Your task to perform on an android device: read, delete, or share a saved page in the chrome app Image 0: 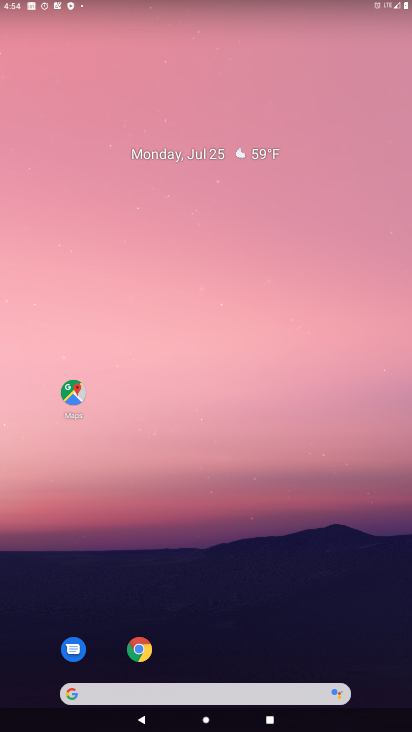
Step 0: drag from (263, 636) to (211, 42)
Your task to perform on an android device: read, delete, or share a saved page in the chrome app Image 1: 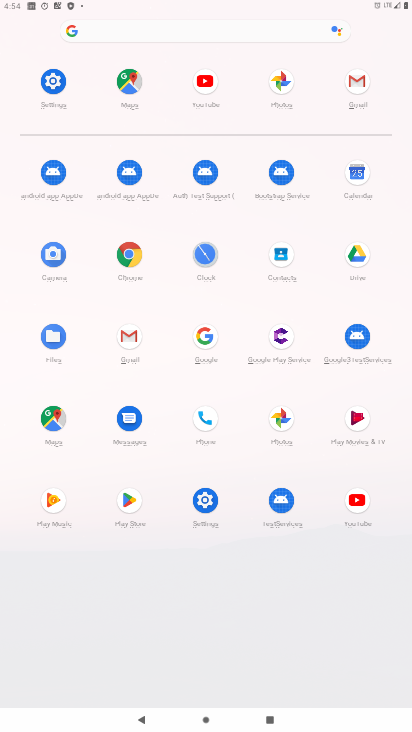
Step 1: click (130, 255)
Your task to perform on an android device: read, delete, or share a saved page in the chrome app Image 2: 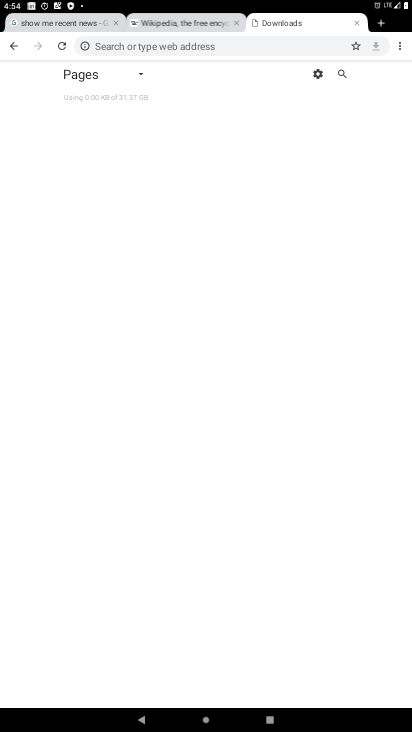
Step 2: task complete